Your task to perform on an android device: Do I have any events tomorrow? Image 0: 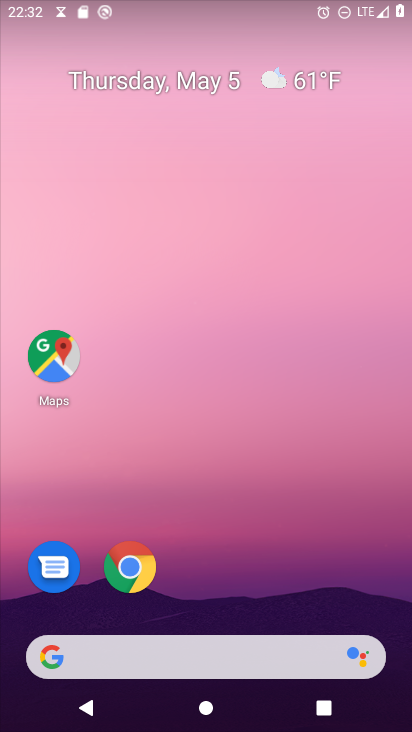
Step 0: drag from (221, 714) to (178, 221)
Your task to perform on an android device: Do I have any events tomorrow? Image 1: 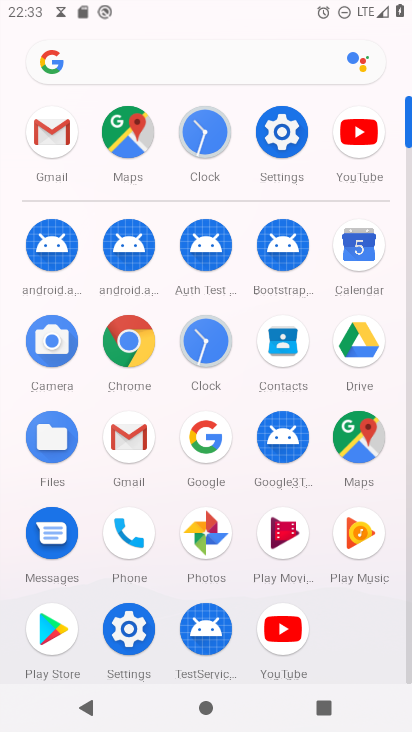
Step 1: click (355, 245)
Your task to perform on an android device: Do I have any events tomorrow? Image 2: 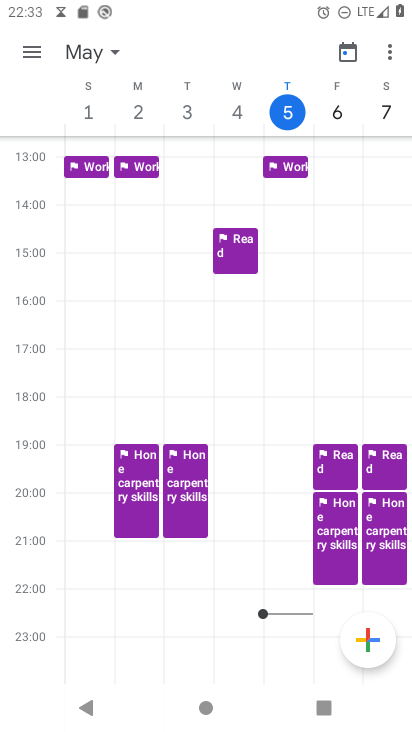
Step 2: click (338, 107)
Your task to perform on an android device: Do I have any events tomorrow? Image 3: 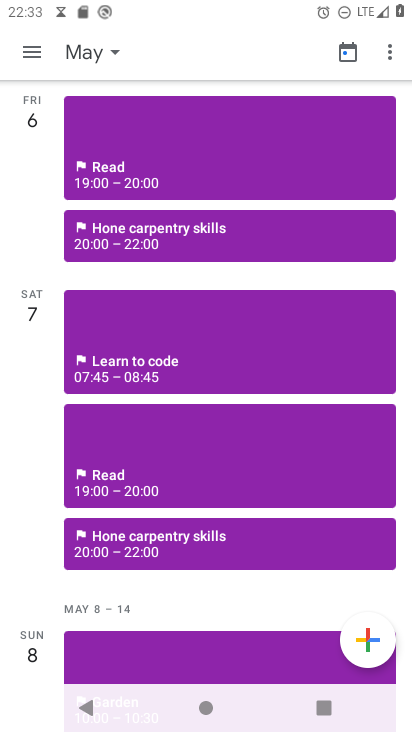
Step 3: task complete